Your task to perform on an android device: Search for desk lamps on article.com Image 0: 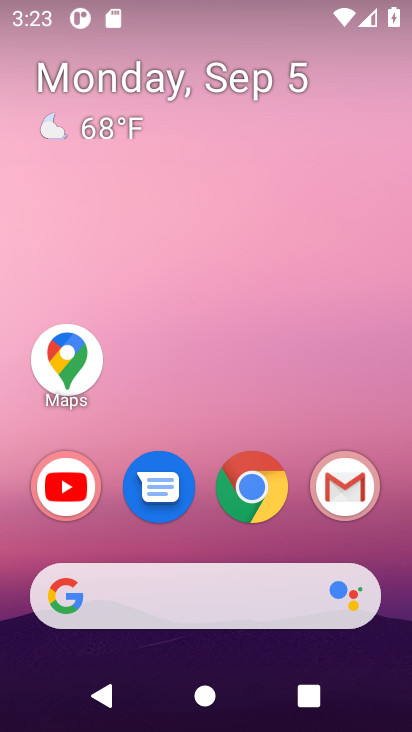
Step 0: click (243, 476)
Your task to perform on an android device: Search for desk lamps on article.com Image 1: 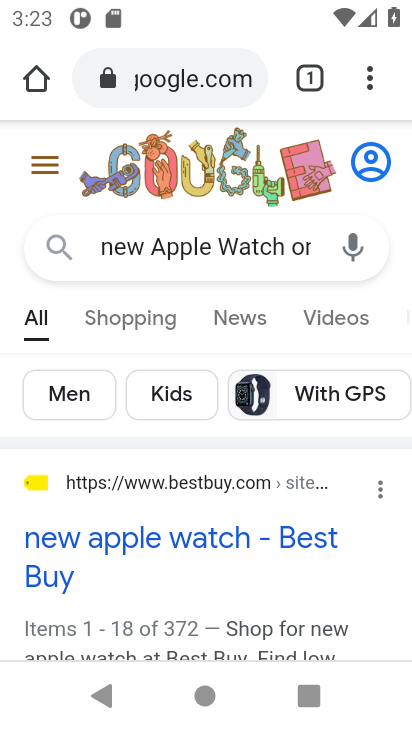
Step 1: click (192, 89)
Your task to perform on an android device: Search for desk lamps on article.com Image 2: 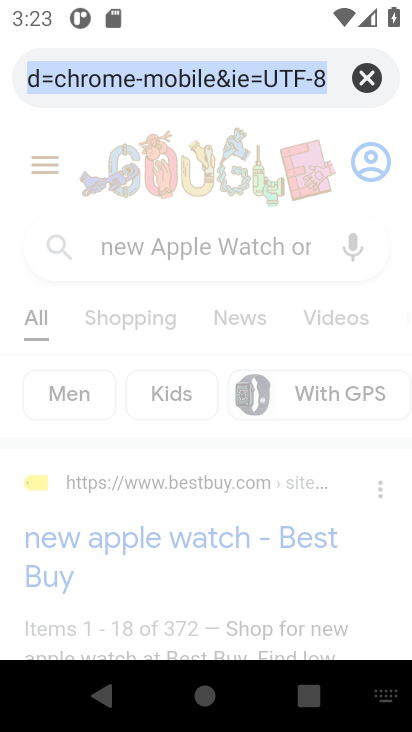
Step 2: click (364, 78)
Your task to perform on an android device: Search for desk lamps on article.com Image 3: 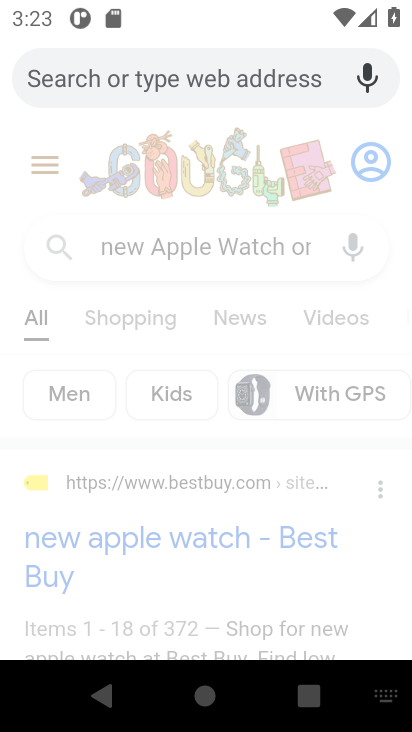
Step 3: type "desk lamps on article.com"
Your task to perform on an android device: Search for desk lamps on article.com Image 4: 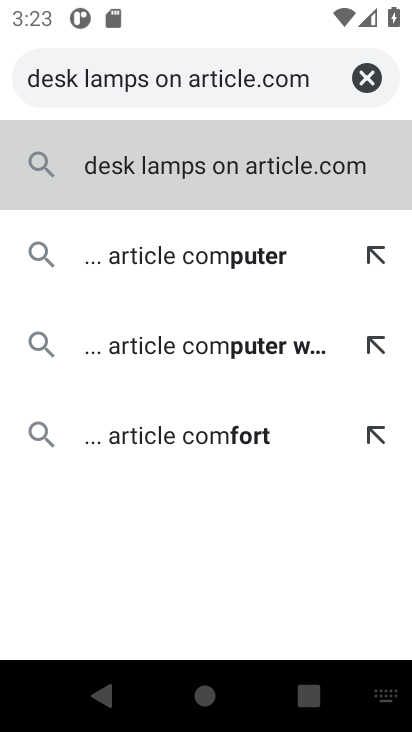
Step 4: click (237, 163)
Your task to perform on an android device: Search for desk lamps on article.com Image 5: 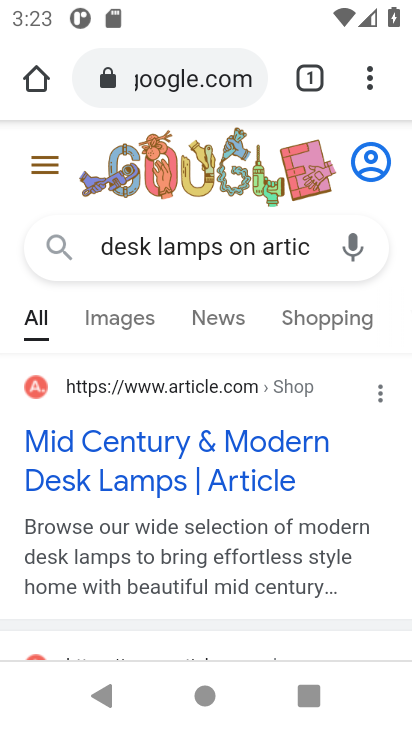
Step 5: task complete